Your task to perform on an android device: delete a single message in the gmail app Image 0: 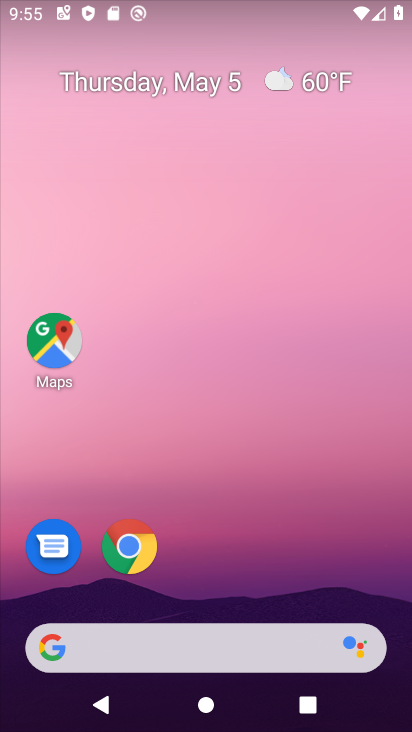
Step 0: drag from (257, 559) to (292, 1)
Your task to perform on an android device: delete a single message in the gmail app Image 1: 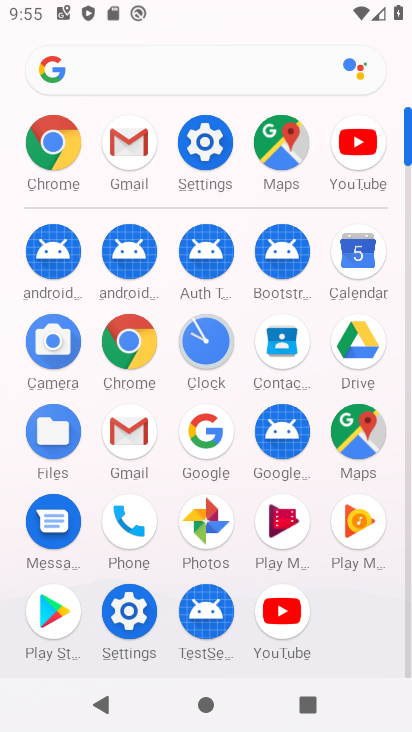
Step 1: click (127, 149)
Your task to perform on an android device: delete a single message in the gmail app Image 2: 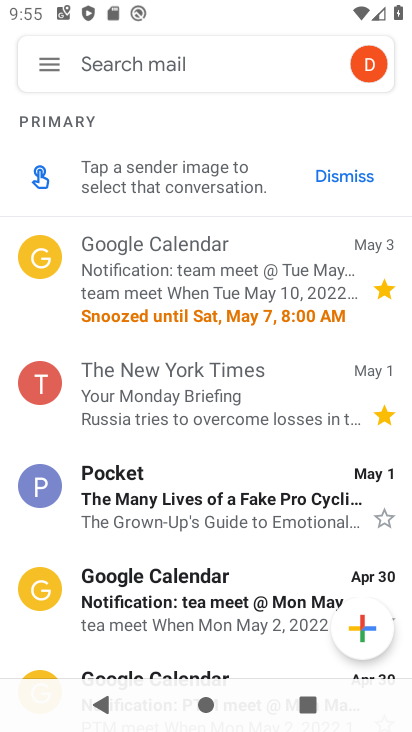
Step 2: click (251, 415)
Your task to perform on an android device: delete a single message in the gmail app Image 3: 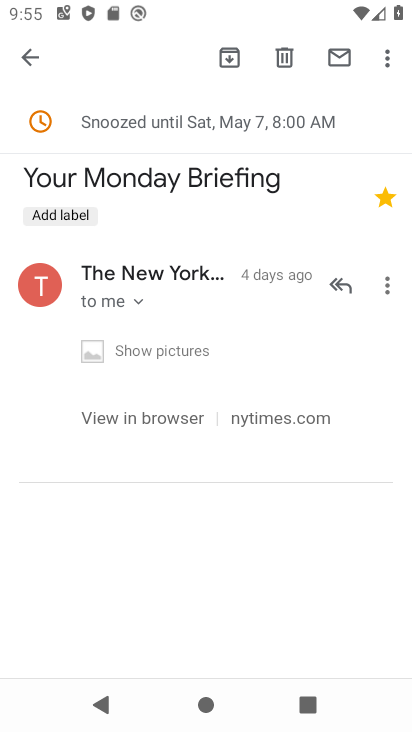
Step 3: click (286, 59)
Your task to perform on an android device: delete a single message in the gmail app Image 4: 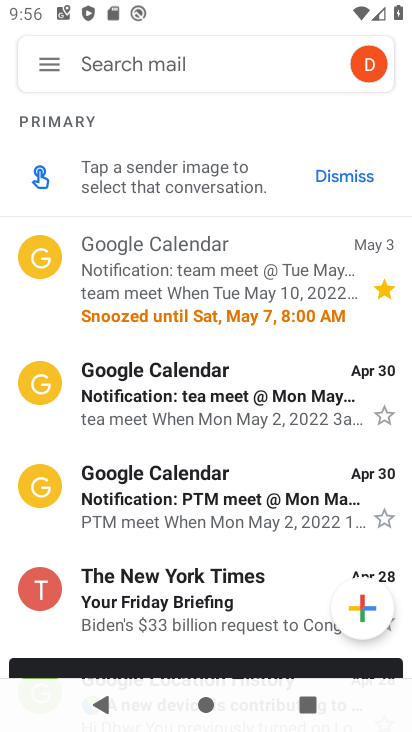
Step 4: task complete